Your task to perform on an android device: open a bookmark in the chrome app Image 0: 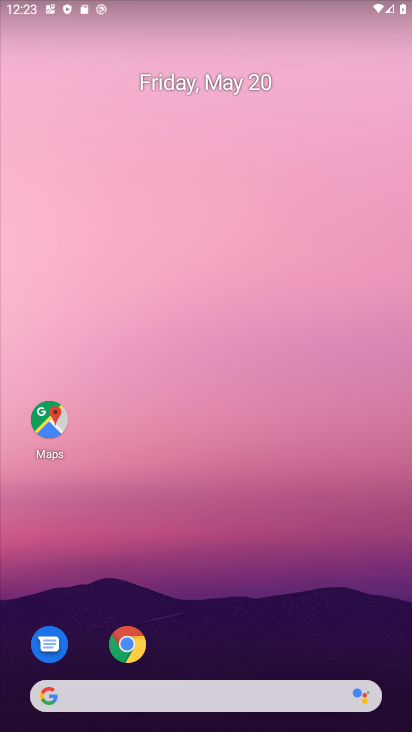
Step 0: click (121, 654)
Your task to perform on an android device: open a bookmark in the chrome app Image 1: 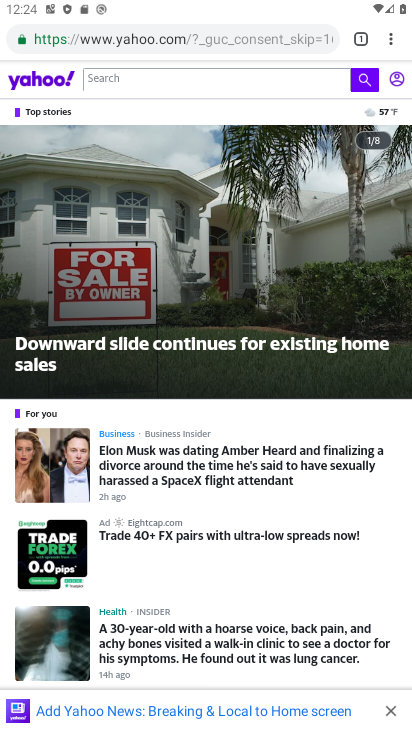
Step 1: click (391, 38)
Your task to perform on an android device: open a bookmark in the chrome app Image 2: 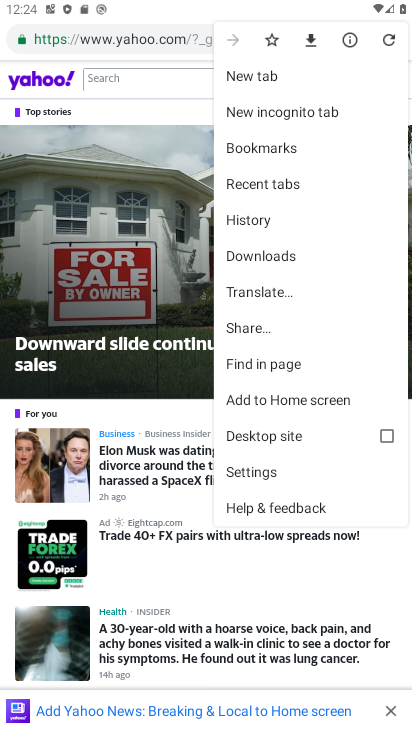
Step 2: click (285, 152)
Your task to perform on an android device: open a bookmark in the chrome app Image 3: 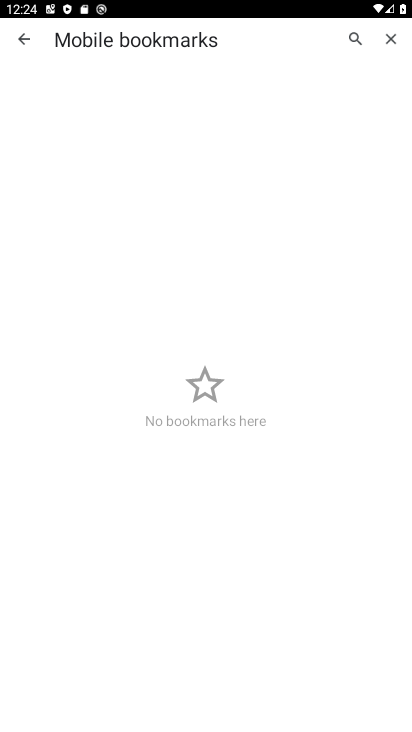
Step 3: task complete